Your task to perform on an android device: open app "Clock" (install if not already installed) Image 0: 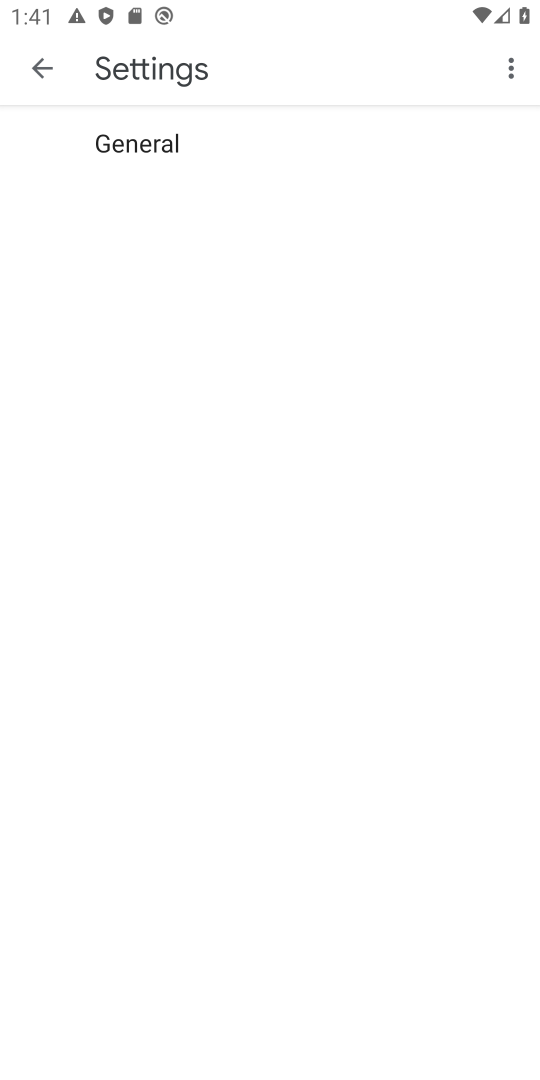
Step 0: press home button
Your task to perform on an android device: open app "Clock" (install if not already installed) Image 1: 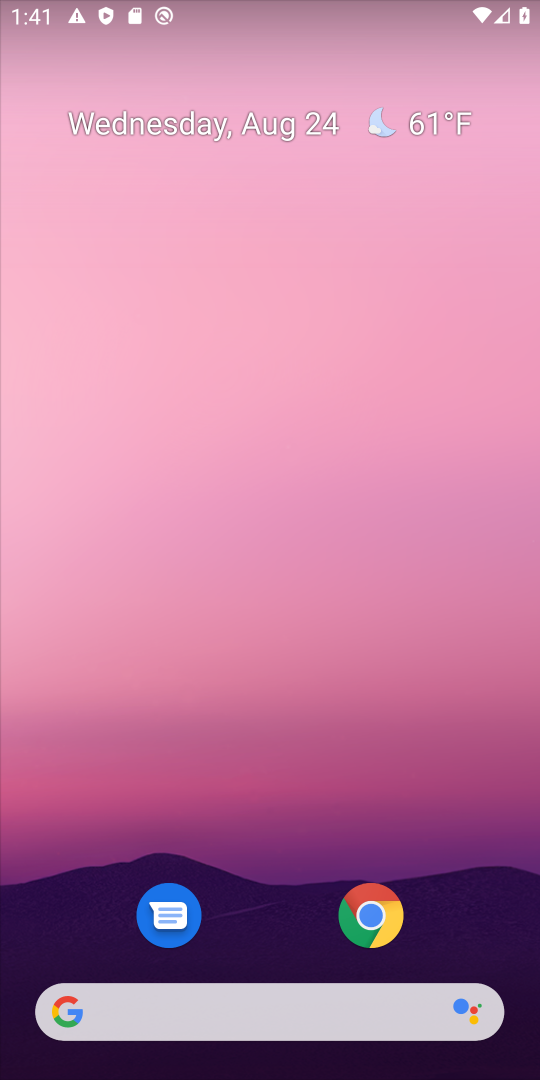
Step 1: drag from (253, 879) to (285, 202)
Your task to perform on an android device: open app "Clock" (install if not already installed) Image 2: 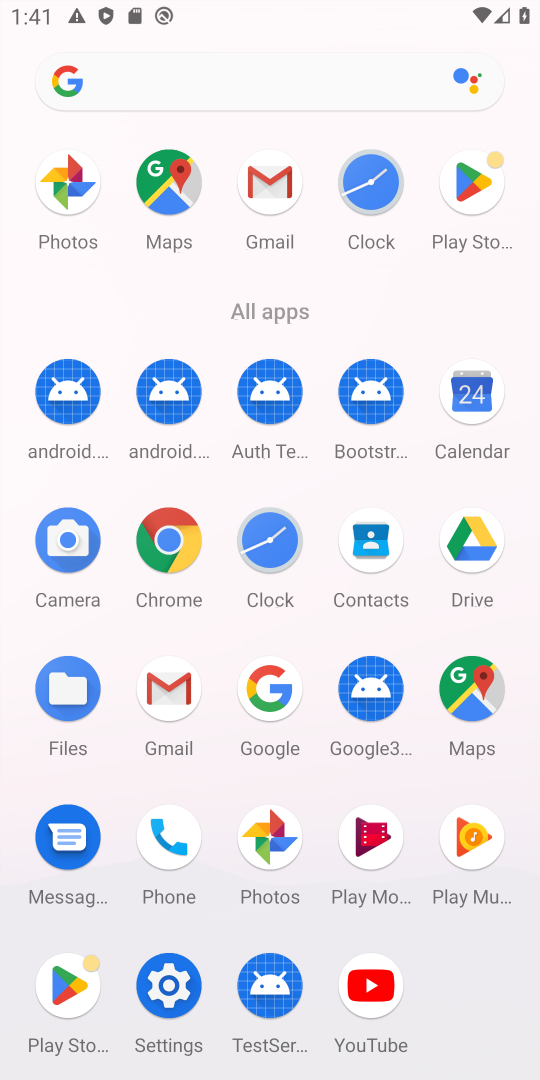
Step 2: click (464, 183)
Your task to perform on an android device: open app "Clock" (install if not already installed) Image 3: 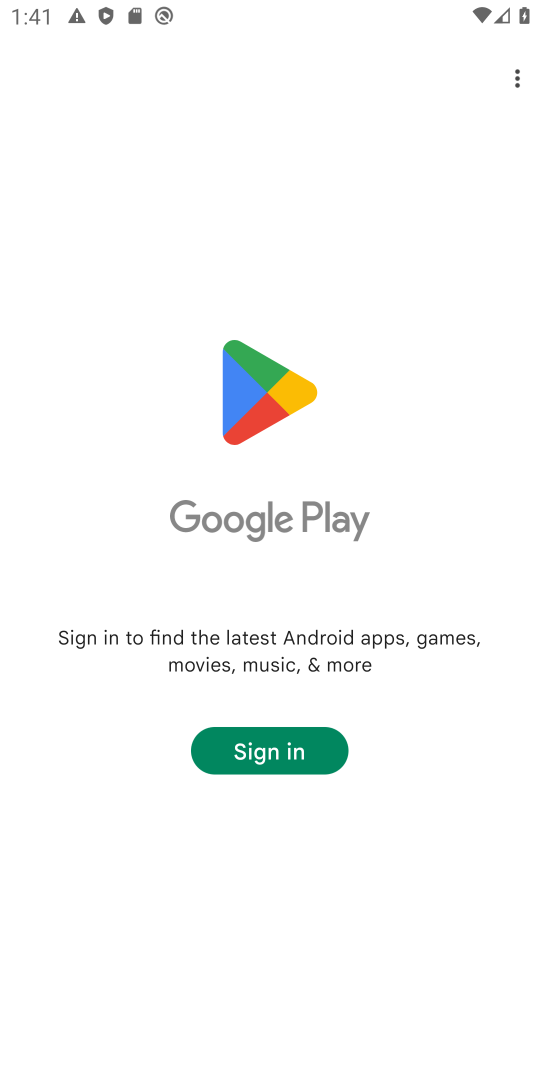
Step 3: task complete